Your task to perform on an android device: change alarm snooze length Image 0: 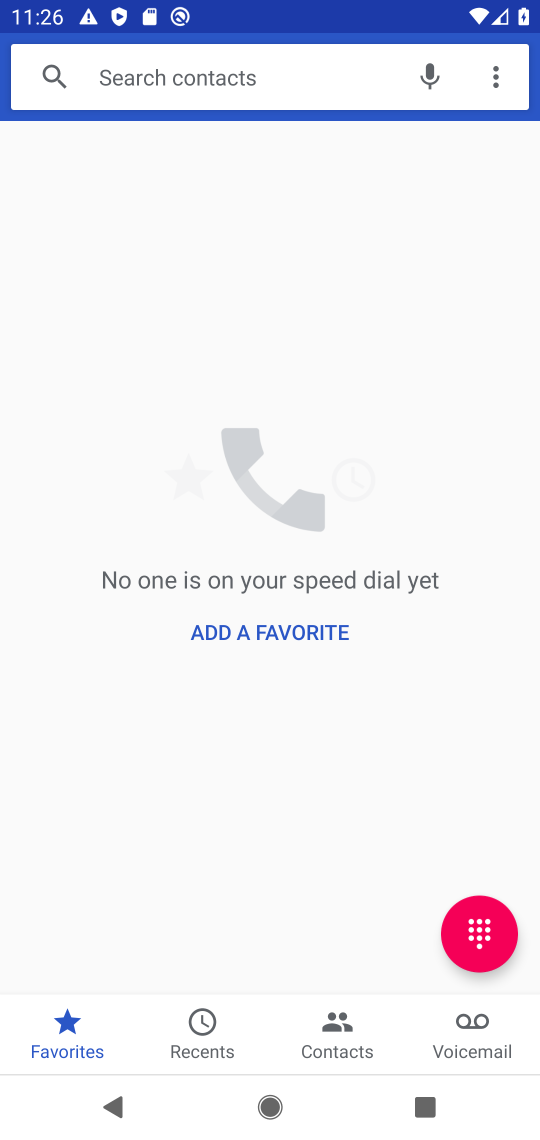
Step 0: press home button
Your task to perform on an android device: change alarm snooze length Image 1: 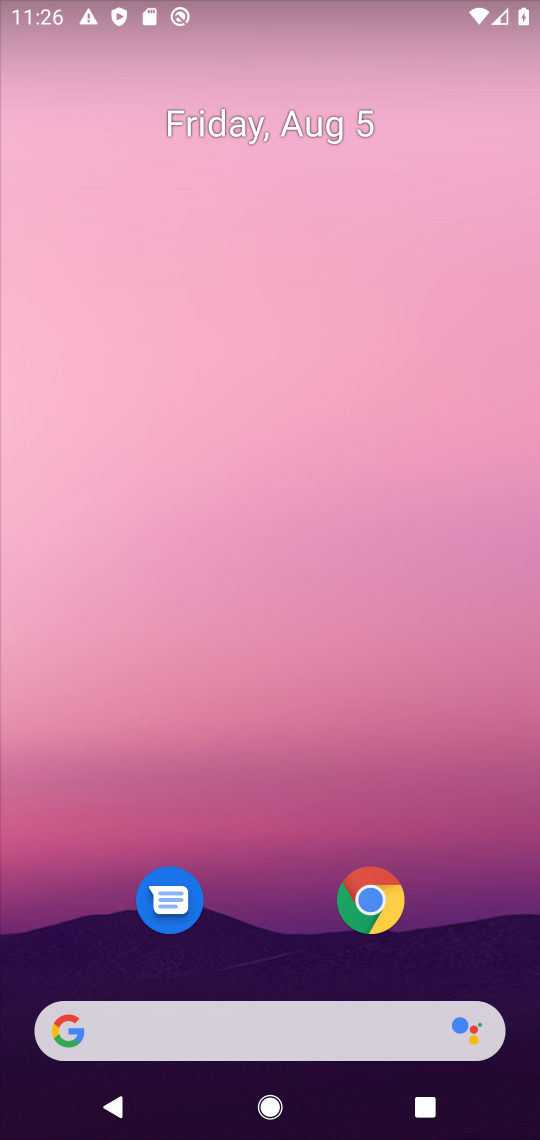
Step 1: drag from (301, 987) to (294, 185)
Your task to perform on an android device: change alarm snooze length Image 2: 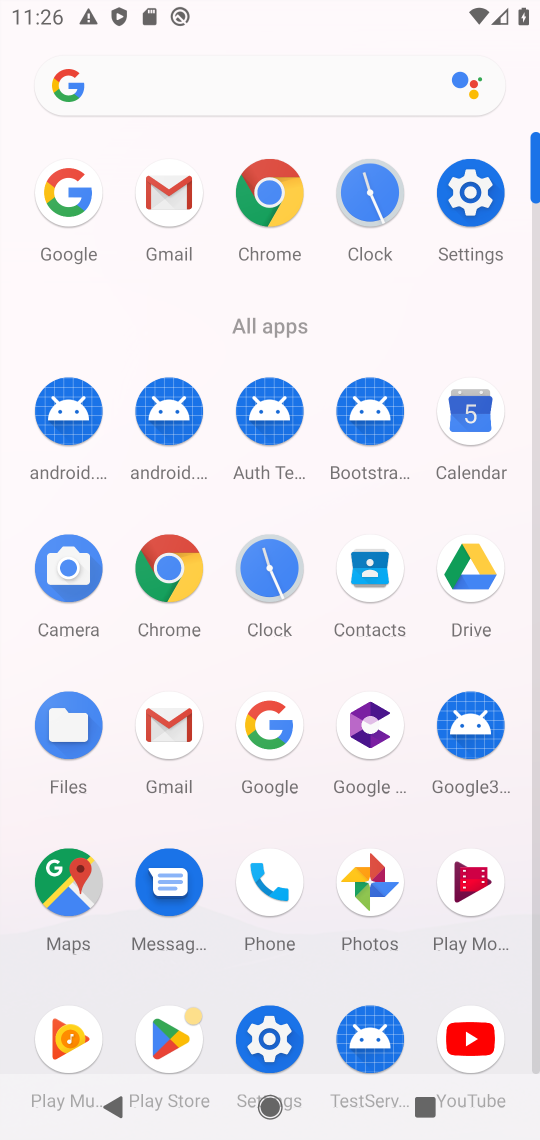
Step 2: click (284, 578)
Your task to perform on an android device: change alarm snooze length Image 3: 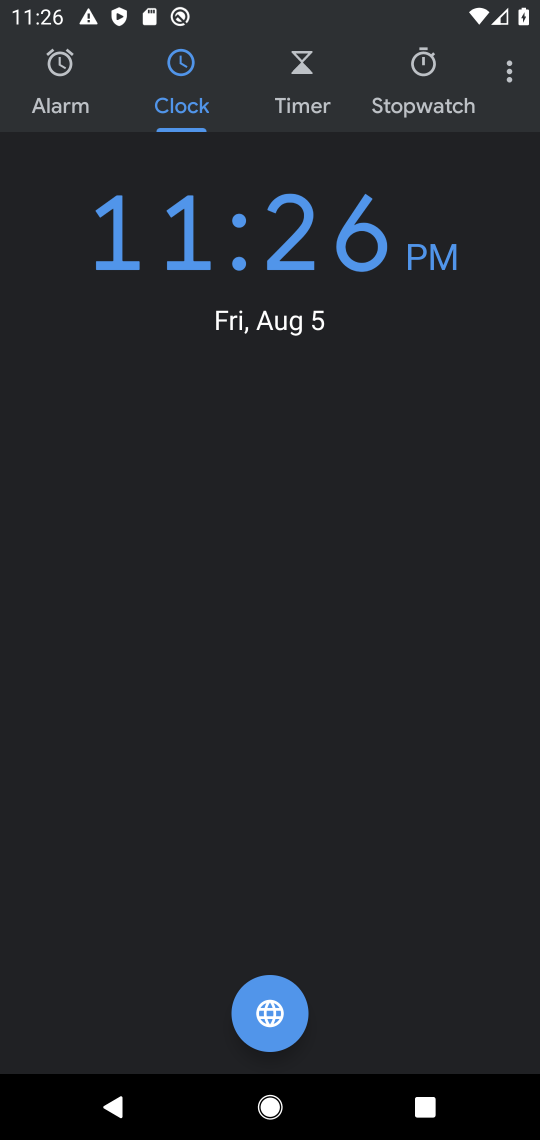
Step 3: click (511, 81)
Your task to perform on an android device: change alarm snooze length Image 4: 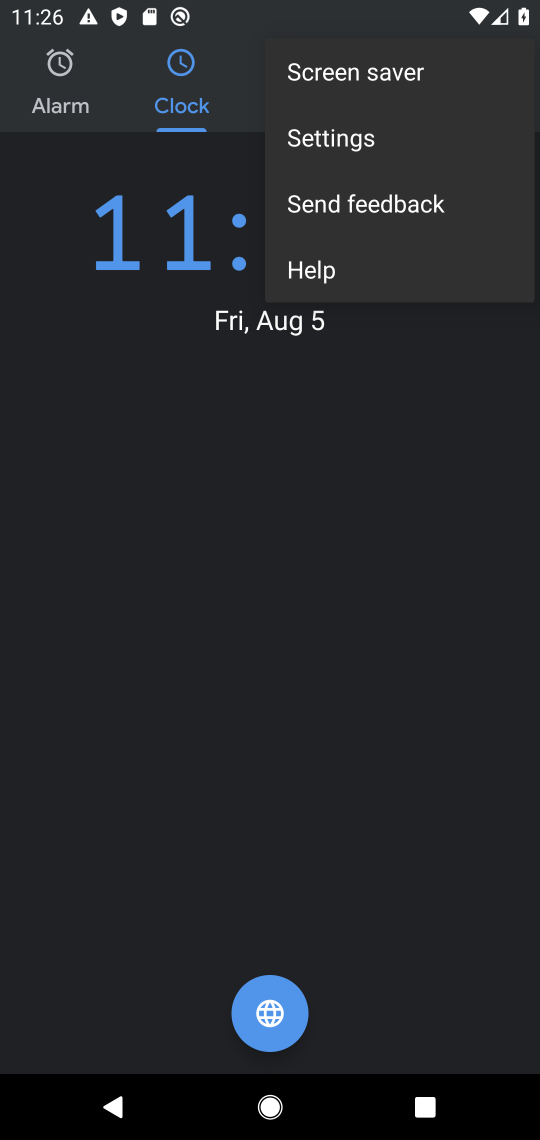
Step 4: click (323, 136)
Your task to perform on an android device: change alarm snooze length Image 5: 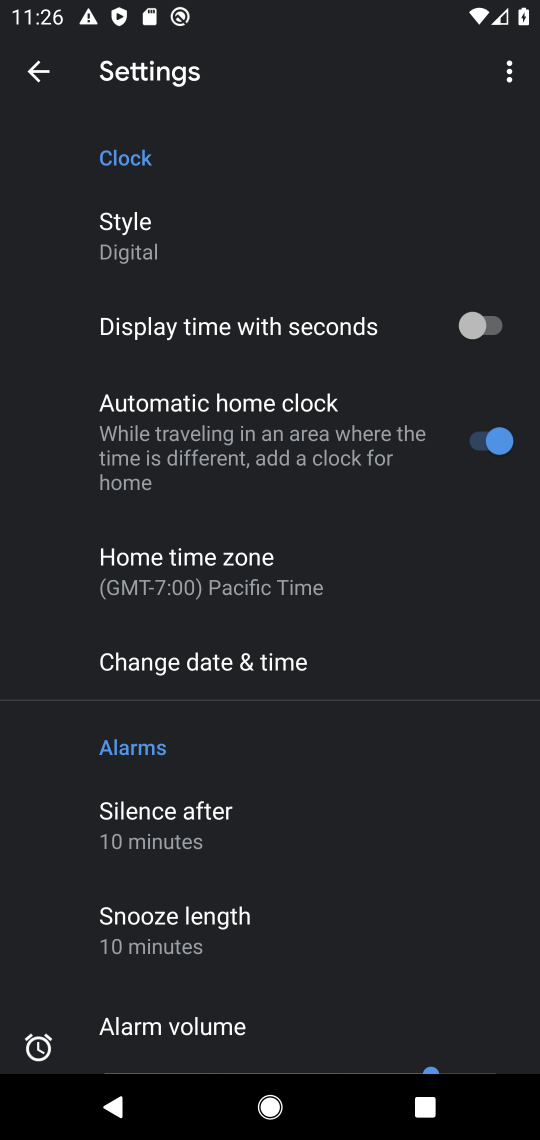
Step 5: click (159, 930)
Your task to perform on an android device: change alarm snooze length Image 6: 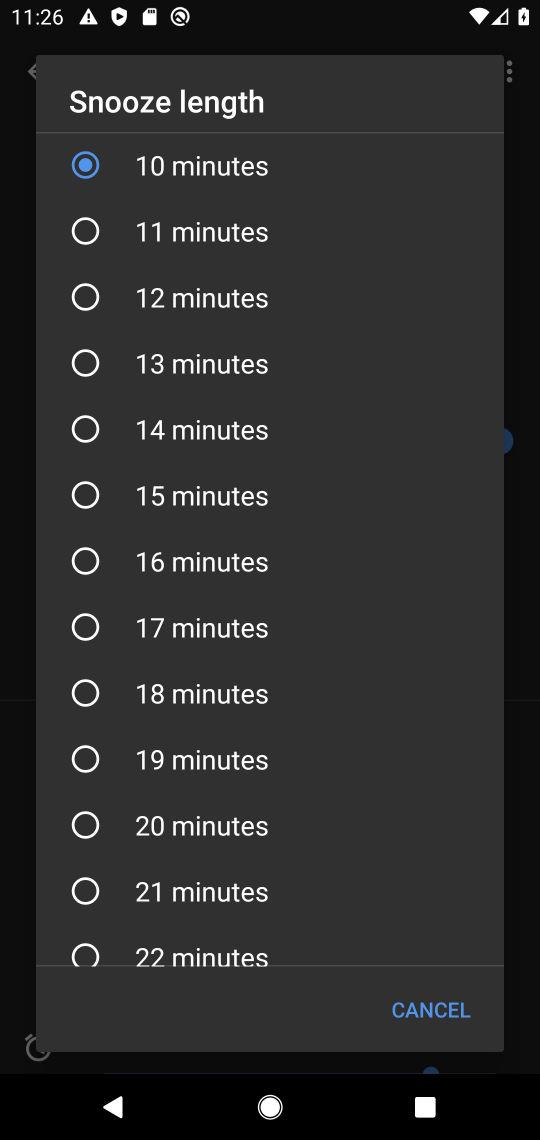
Step 6: click (88, 886)
Your task to perform on an android device: change alarm snooze length Image 7: 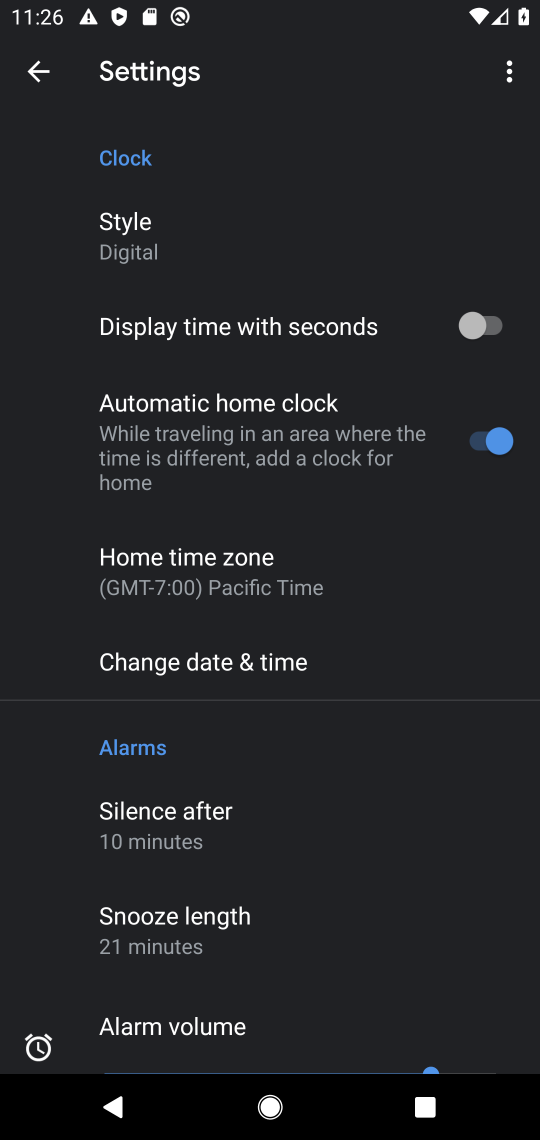
Step 7: task complete